Your task to perform on an android device: open chrome and create a bookmark for the current page Image 0: 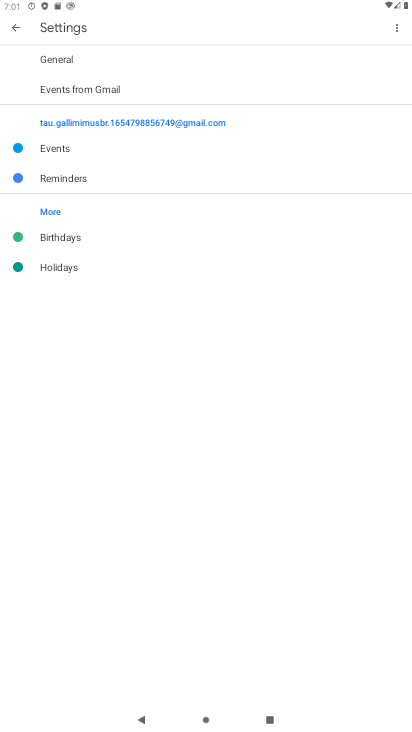
Step 0: press home button
Your task to perform on an android device: open chrome and create a bookmark for the current page Image 1: 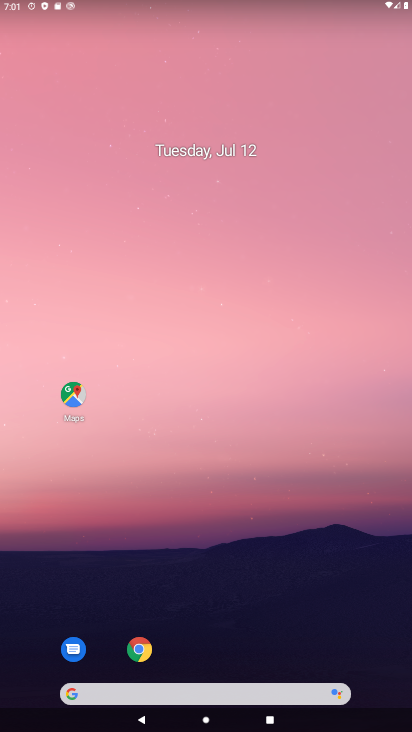
Step 1: click (138, 650)
Your task to perform on an android device: open chrome and create a bookmark for the current page Image 2: 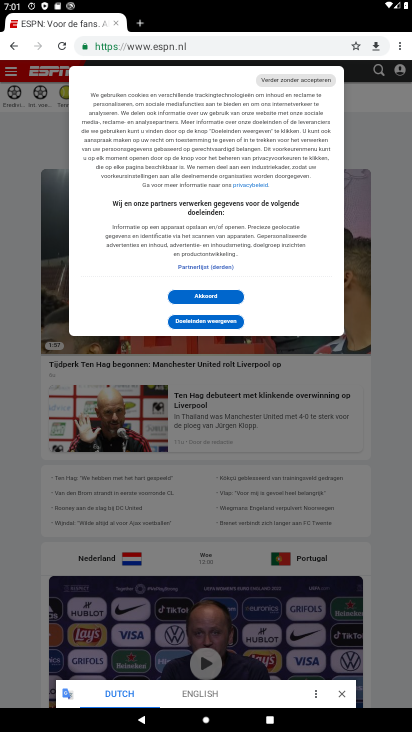
Step 2: click (356, 47)
Your task to perform on an android device: open chrome and create a bookmark for the current page Image 3: 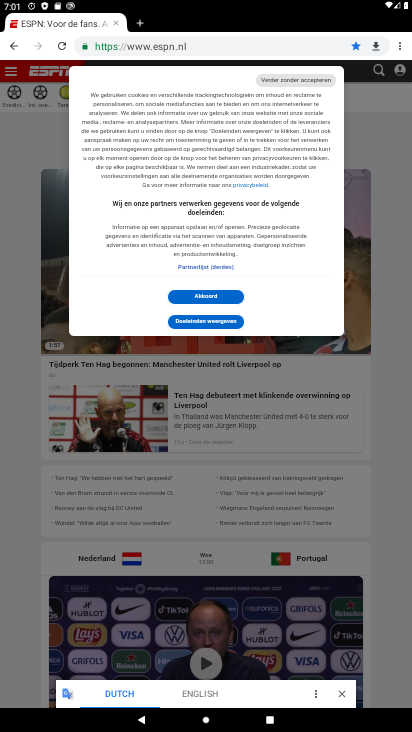
Step 3: task complete